Your task to perform on an android device: check data usage Image 0: 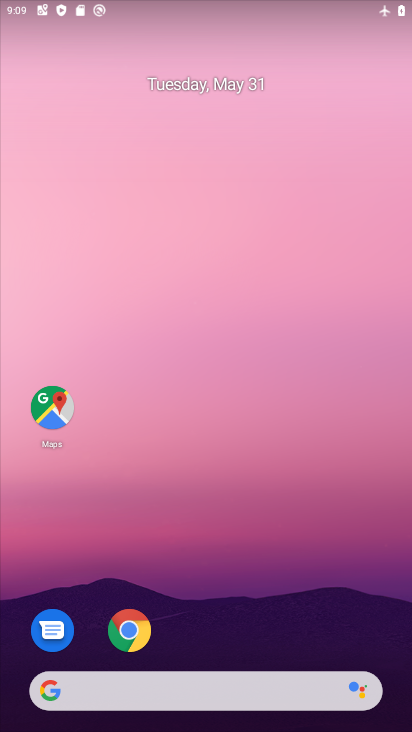
Step 0: drag from (187, 645) to (224, 118)
Your task to perform on an android device: check data usage Image 1: 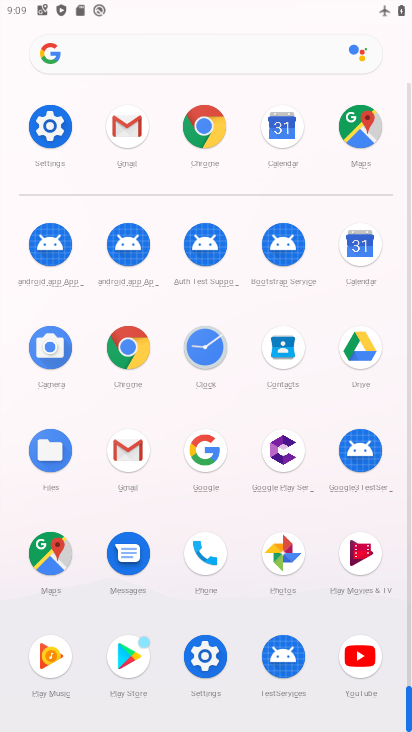
Step 1: click (47, 120)
Your task to perform on an android device: check data usage Image 2: 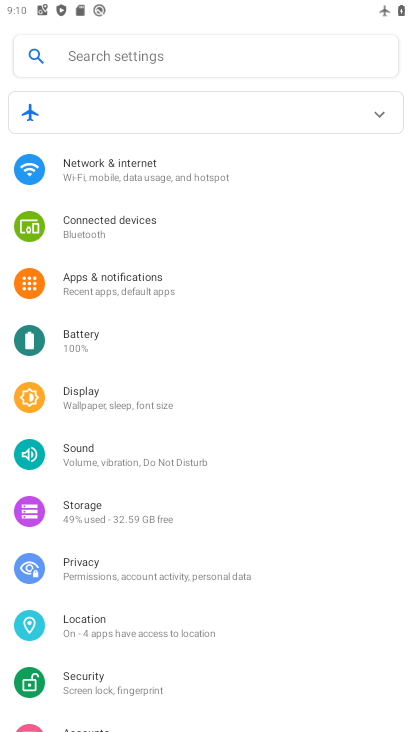
Step 2: click (157, 164)
Your task to perform on an android device: check data usage Image 3: 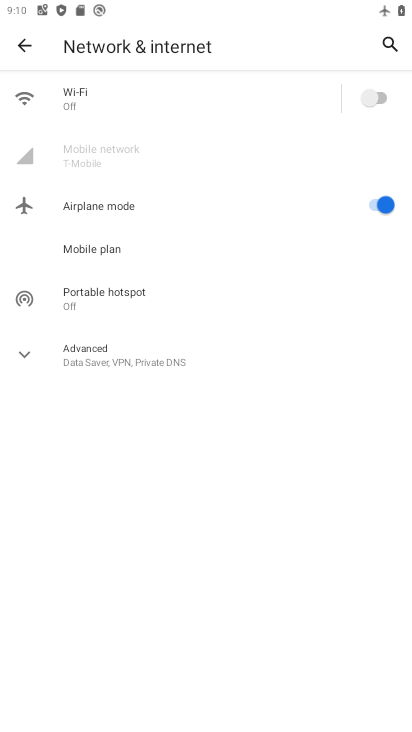
Step 3: click (113, 255)
Your task to perform on an android device: check data usage Image 4: 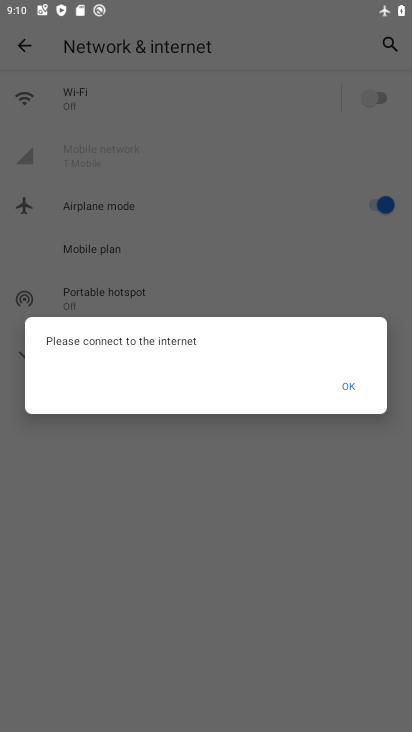
Step 4: click (356, 387)
Your task to perform on an android device: check data usage Image 5: 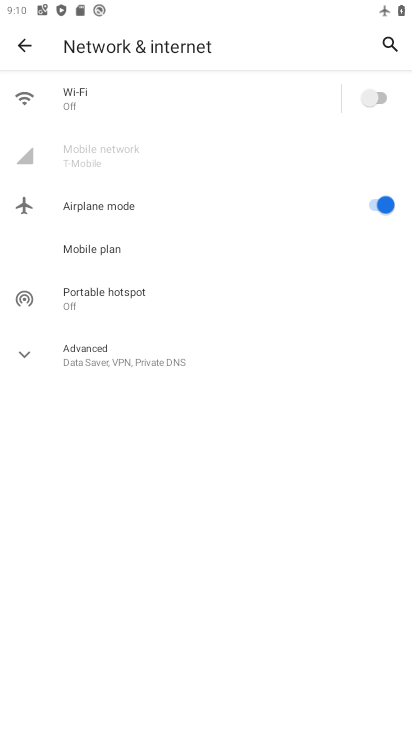
Step 5: click (197, 132)
Your task to perform on an android device: check data usage Image 6: 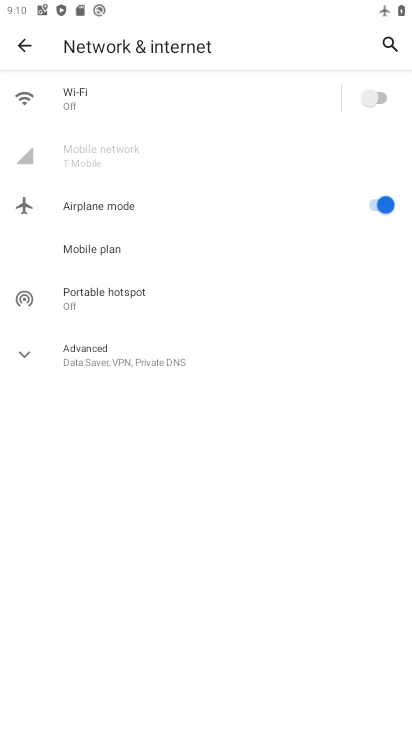
Step 6: click (188, 171)
Your task to perform on an android device: check data usage Image 7: 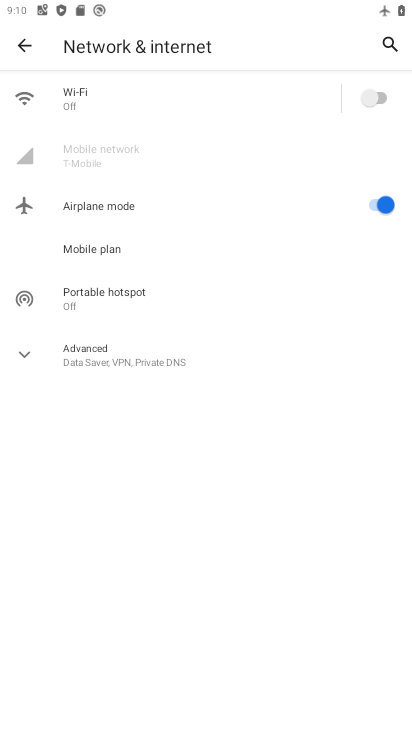
Step 7: task complete